Your task to perform on an android device: delete a single message in the gmail app Image 0: 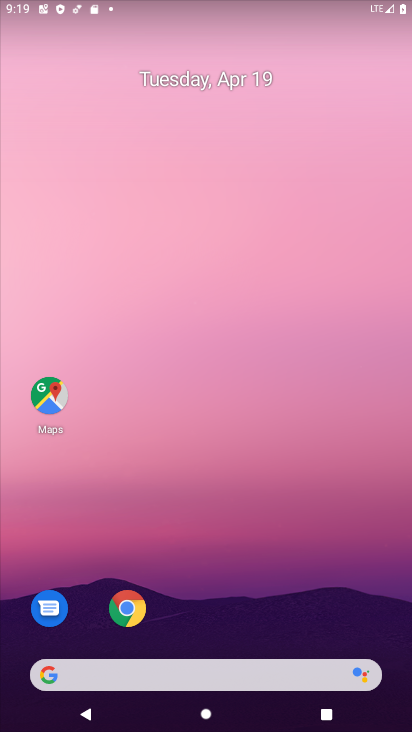
Step 0: drag from (378, 630) to (340, 89)
Your task to perform on an android device: delete a single message in the gmail app Image 1: 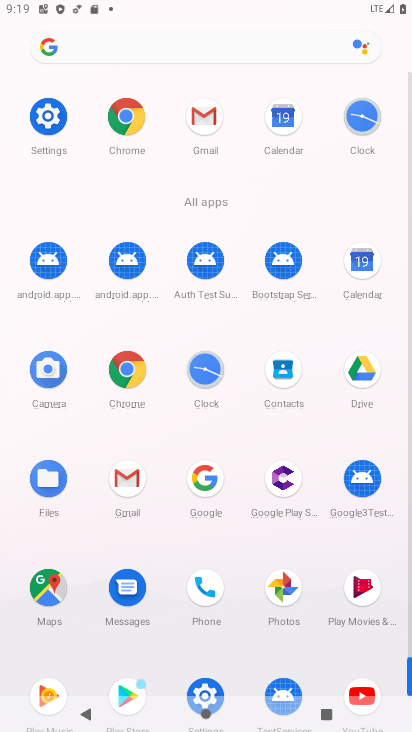
Step 1: click (124, 477)
Your task to perform on an android device: delete a single message in the gmail app Image 2: 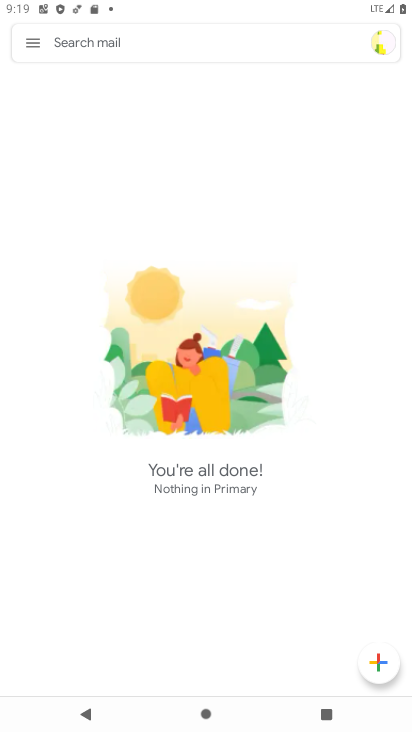
Step 2: click (29, 41)
Your task to perform on an android device: delete a single message in the gmail app Image 3: 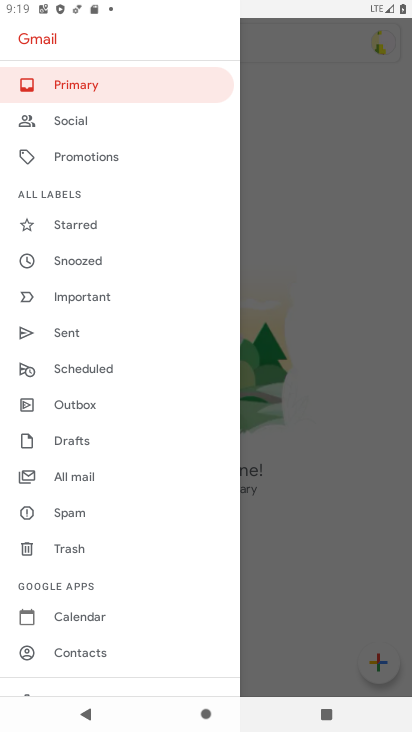
Step 3: click (70, 477)
Your task to perform on an android device: delete a single message in the gmail app Image 4: 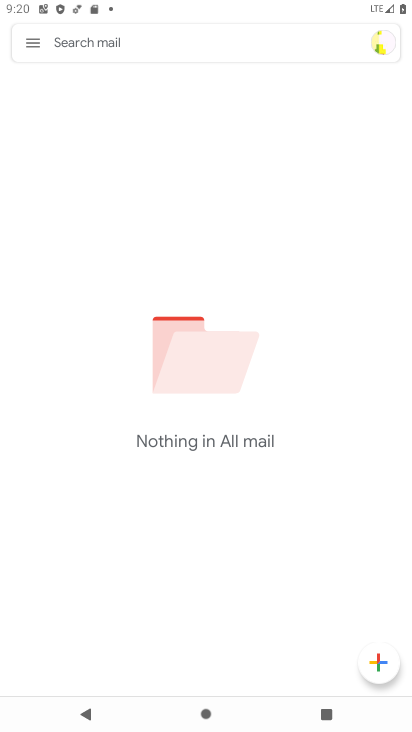
Step 4: task complete